Your task to perform on an android device: Go to display settings Image 0: 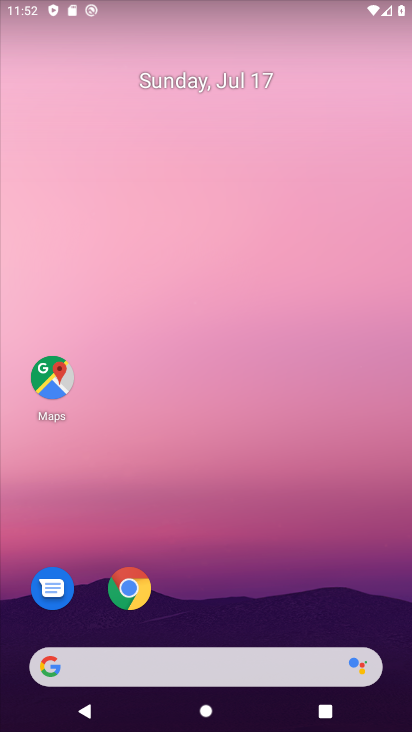
Step 0: drag from (220, 711) to (239, 43)
Your task to perform on an android device: Go to display settings Image 1: 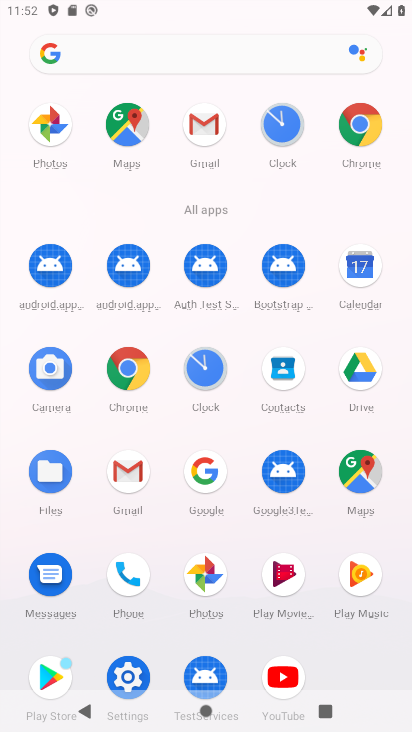
Step 1: click (126, 678)
Your task to perform on an android device: Go to display settings Image 2: 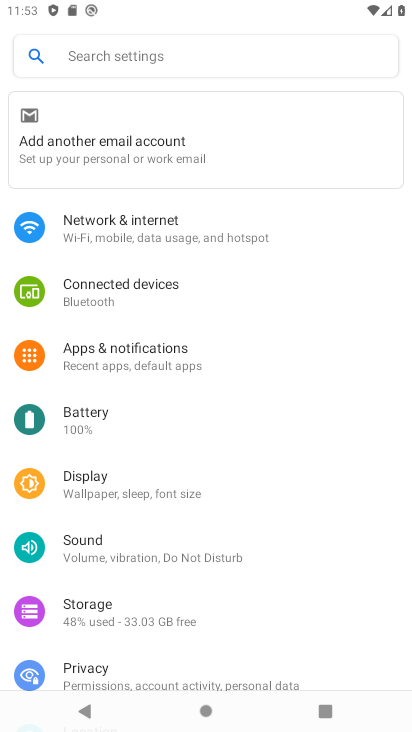
Step 2: click (80, 485)
Your task to perform on an android device: Go to display settings Image 3: 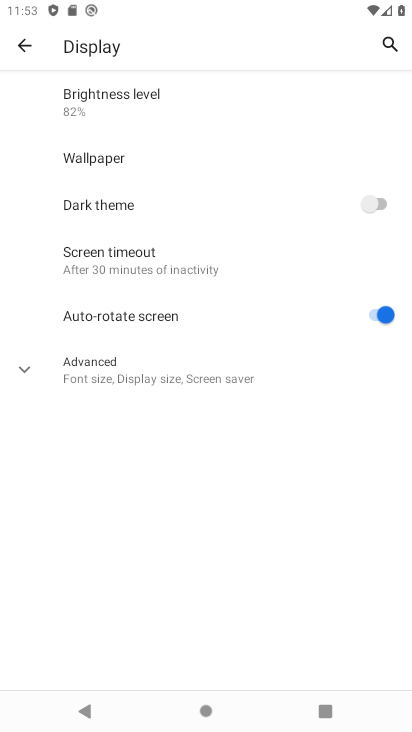
Step 3: task complete